Your task to perform on an android device: turn off data saver in the chrome app Image 0: 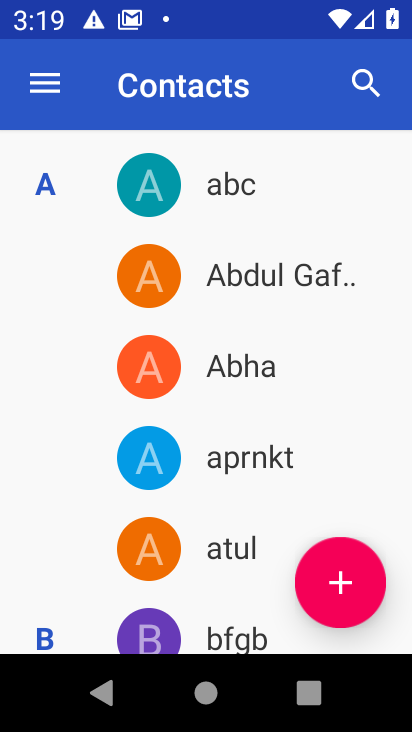
Step 0: press home button
Your task to perform on an android device: turn off data saver in the chrome app Image 1: 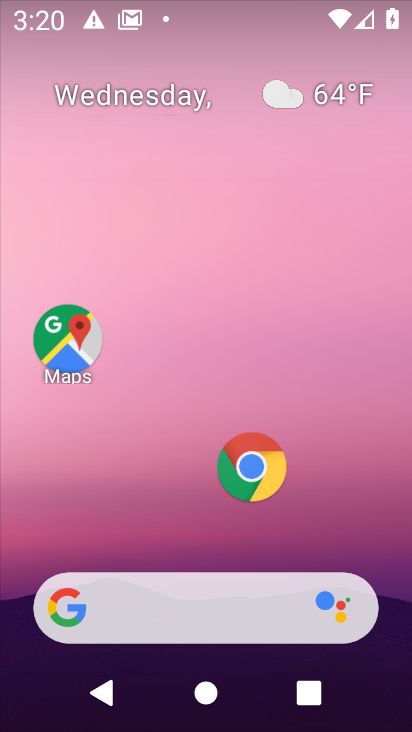
Step 1: click (276, 461)
Your task to perform on an android device: turn off data saver in the chrome app Image 2: 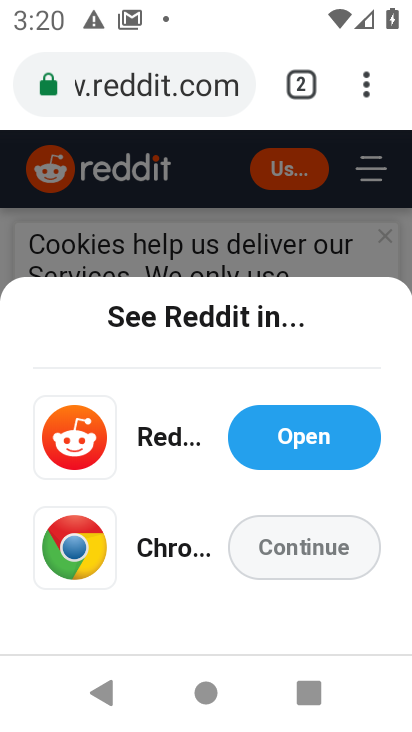
Step 2: task complete